Your task to perform on an android device: create a new album in the google photos Image 0: 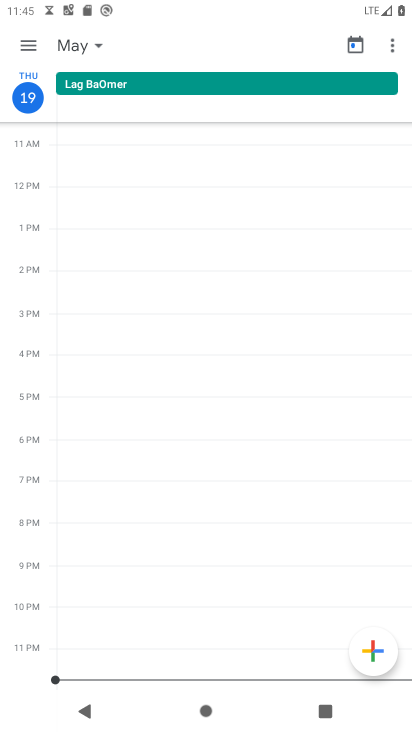
Step 0: press home button
Your task to perform on an android device: create a new album in the google photos Image 1: 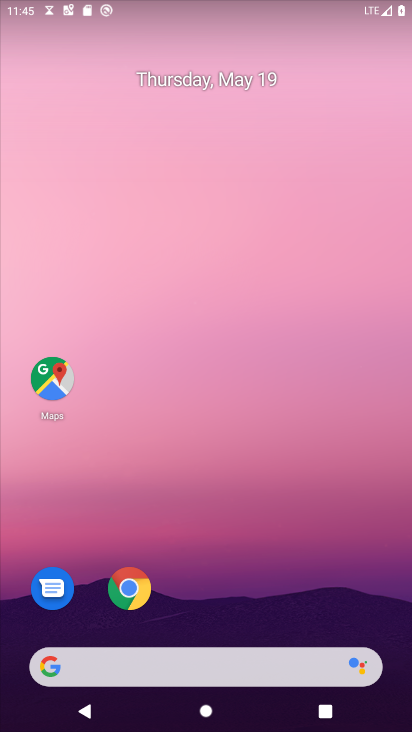
Step 1: drag from (256, 571) to (174, 89)
Your task to perform on an android device: create a new album in the google photos Image 2: 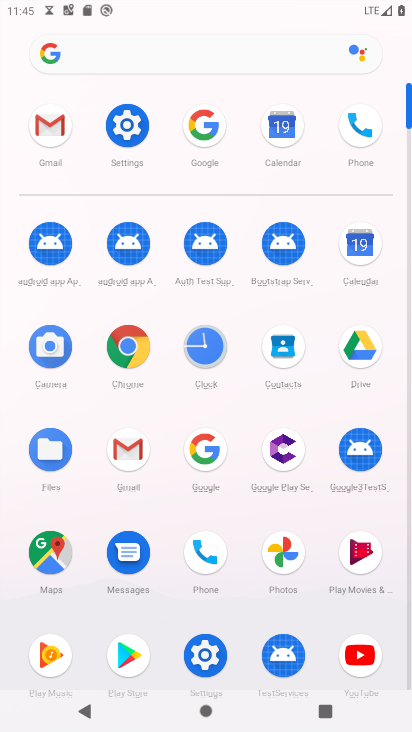
Step 2: click (284, 554)
Your task to perform on an android device: create a new album in the google photos Image 3: 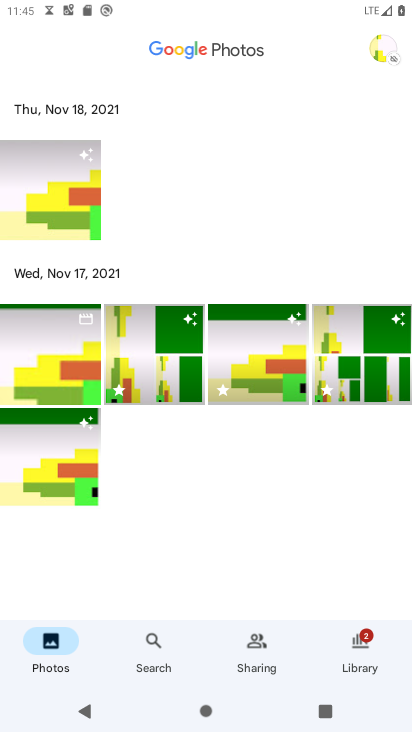
Step 3: click (363, 644)
Your task to perform on an android device: create a new album in the google photos Image 4: 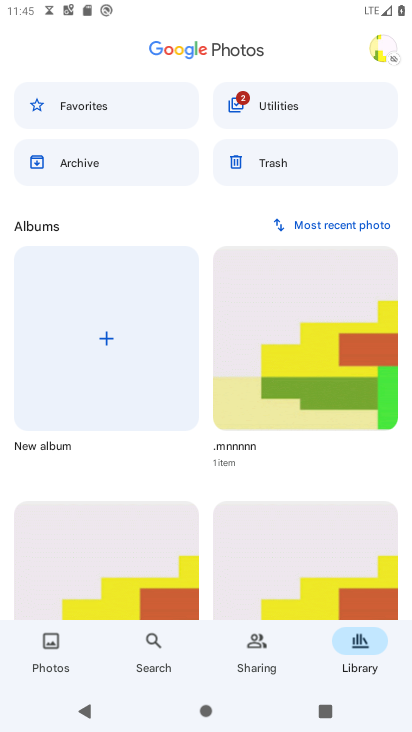
Step 4: click (99, 347)
Your task to perform on an android device: create a new album in the google photos Image 5: 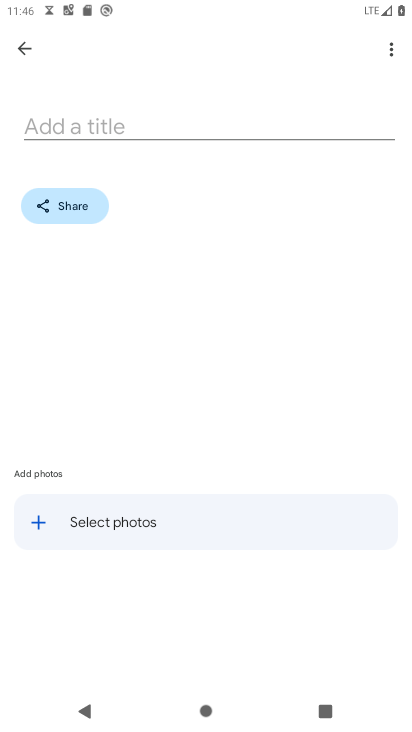
Step 5: click (125, 117)
Your task to perform on an android device: create a new album in the google photos Image 6: 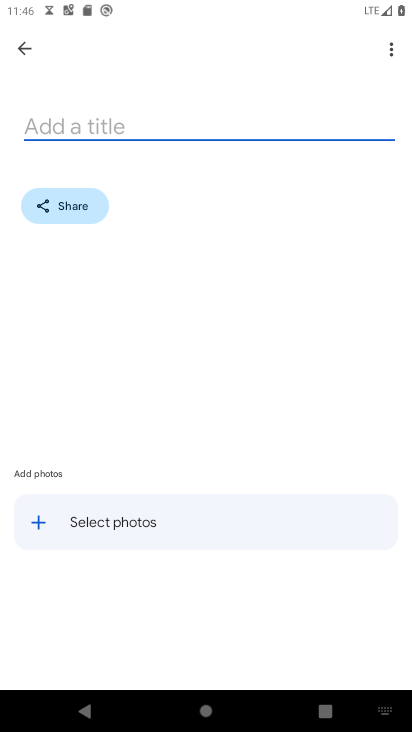
Step 6: type "hgjggjg"
Your task to perform on an android device: create a new album in the google photos Image 7: 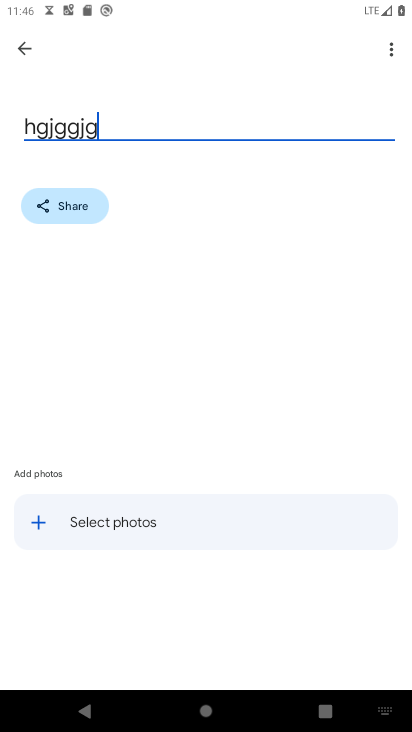
Step 7: type ""
Your task to perform on an android device: create a new album in the google photos Image 8: 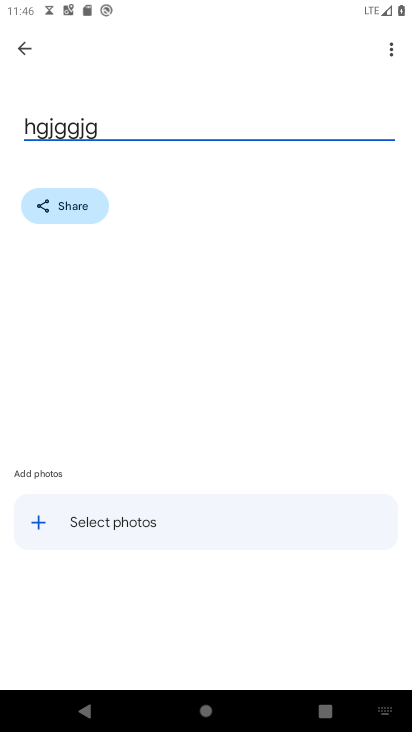
Step 8: click (97, 522)
Your task to perform on an android device: create a new album in the google photos Image 9: 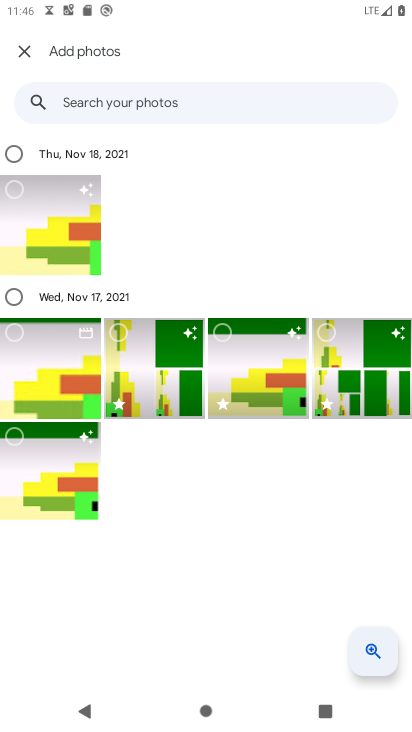
Step 9: click (55, 380)
Your task to perform on an android device: create a new album in the google photos Image 10: 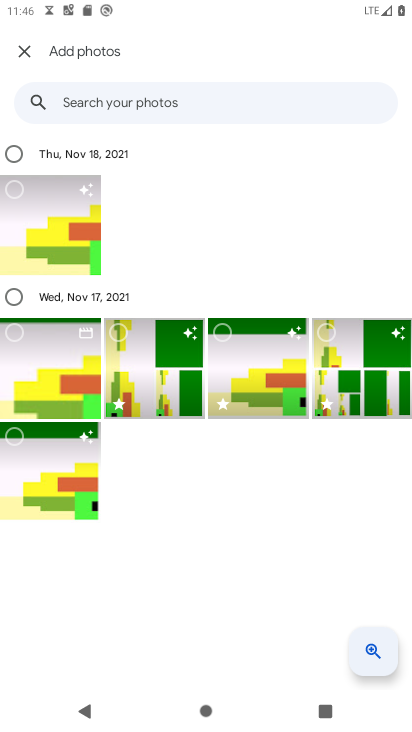
Step 10: click (188, 388)
Your task to perform on an android device: create a new album in the google photos Image 11: 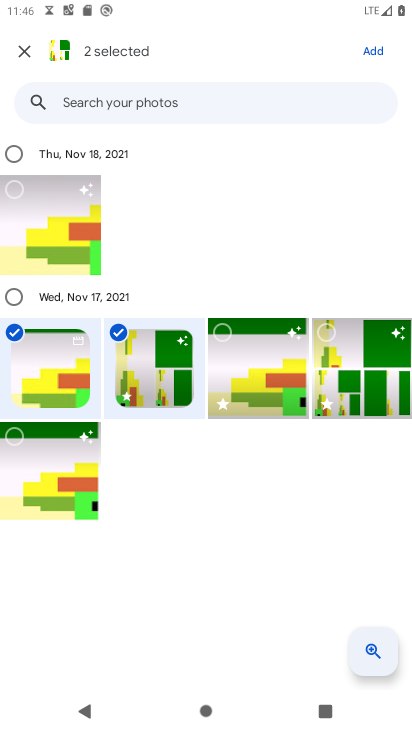
Step 11: click (378, 45)
Your task to perform on an android device: create a new album in the google photos Image 12: 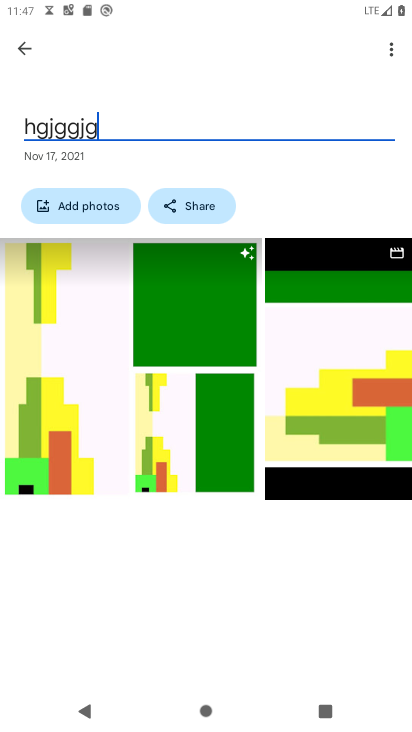
Step 12: task complete